Your task to perform on an android device: clear all cookies in the chrome app Image 0: 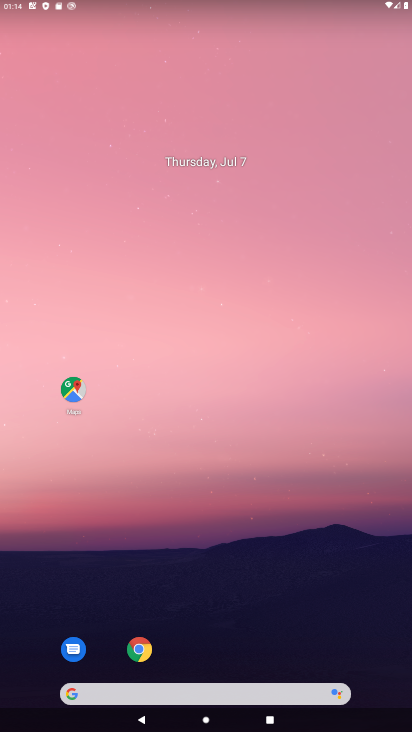
Step 0: drag from (359, 580) to (334, 85)
Your task to perform on an android device: clear all cookies in the chrome app Image 1: 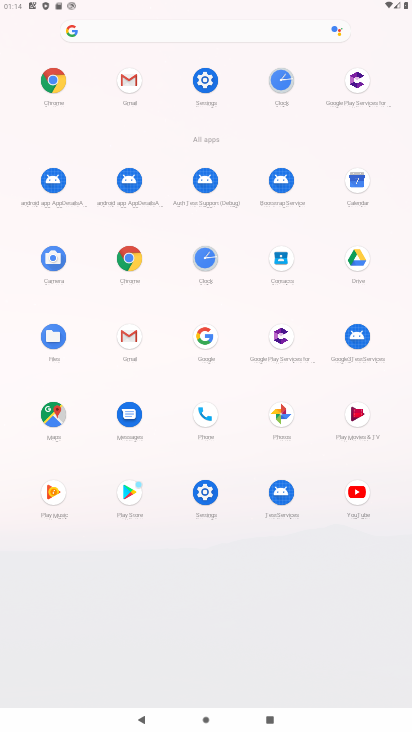
Step 1: click (49, 84)
Your task to perform on an android device: clear all cookies in the chrome app Image 2: 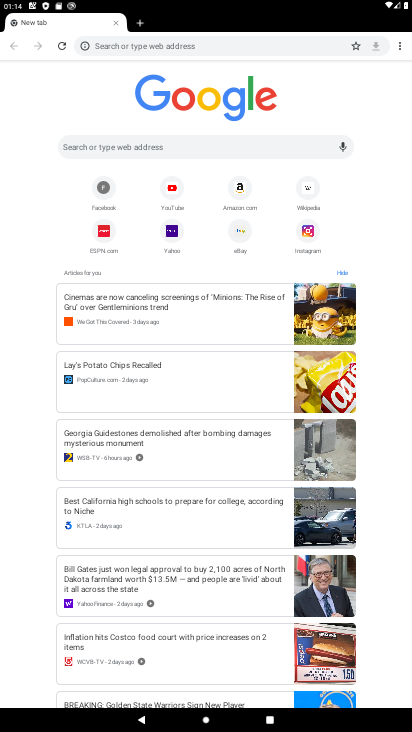
Step 2: click (405, 44)
Your task to perform on an android device: clear all cookies in the chrome app Image 3: 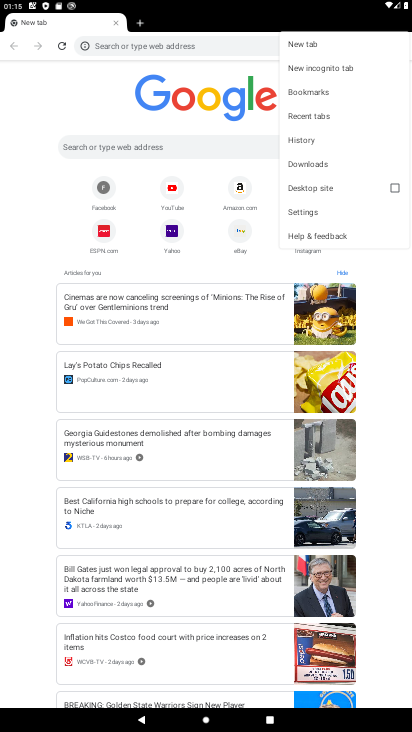
Step 3: click (312, 206)
Your task to perform on an android device: clear all cookies in the chrome app Image 4: 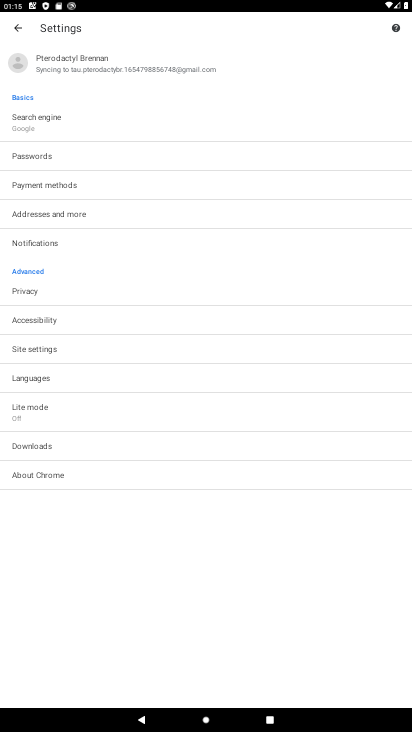
Step 4: click (68, 346)
Your task to perform on an android device: clear all cookies in the chrome app Image 5: 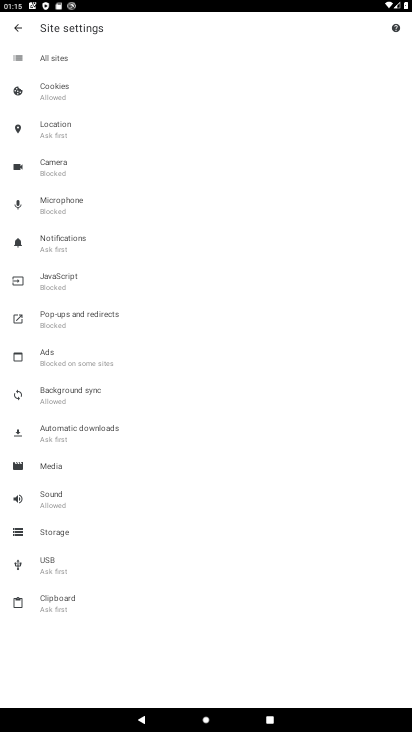
Step 5: click (16, 28)
Your task to perform on an android device: clear all cookies in the chrome app Image 6: 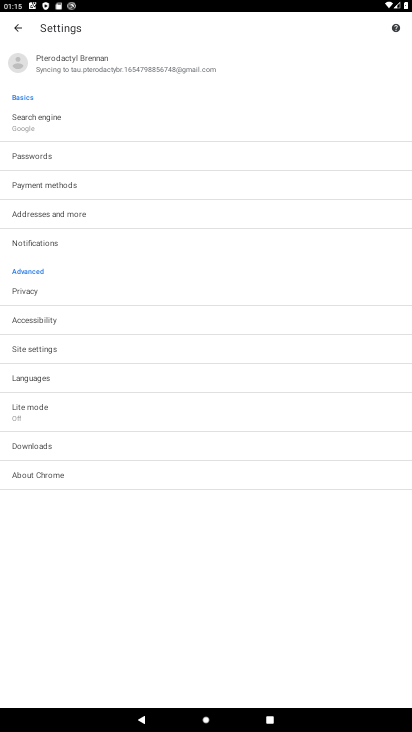
Step 6: click (43, 295)
Your task to perform on an android device: clear all cookies in the chrome app Image 7: 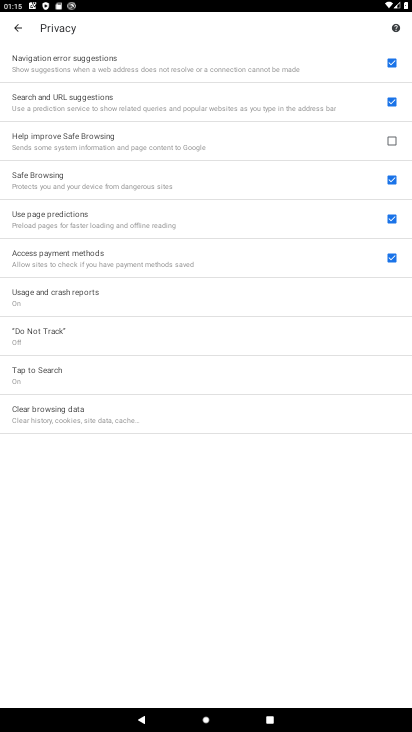
Step 7: click (124, 414)
Your task to perform on an android device: clear all cookies in the chrome app Image 8: 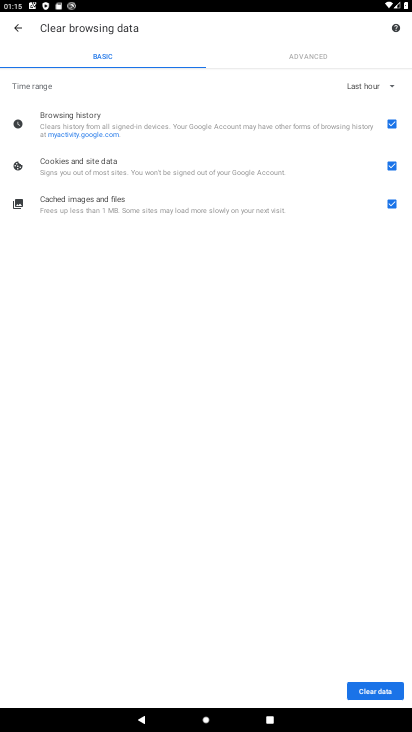
Step 8: click (389, 120)
Your task to perform on an android device: clear all cookies in the chrome app Image 9: 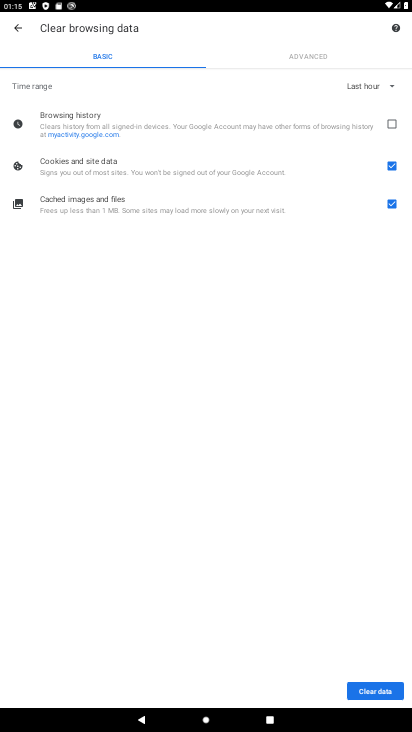
Step 9: click (394, 201)
Your task to perform on an android device: clear all cookies in the chrome app Image 10: 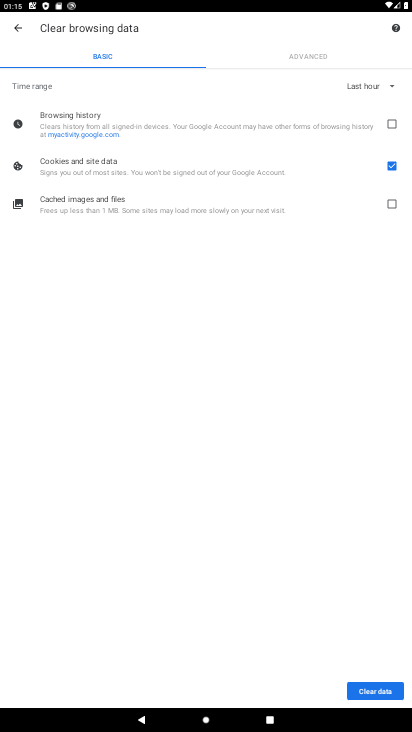
Step 10: click (378, 86)
Your task to perform on an android device: clear all cookies in the chrome app Image 11: 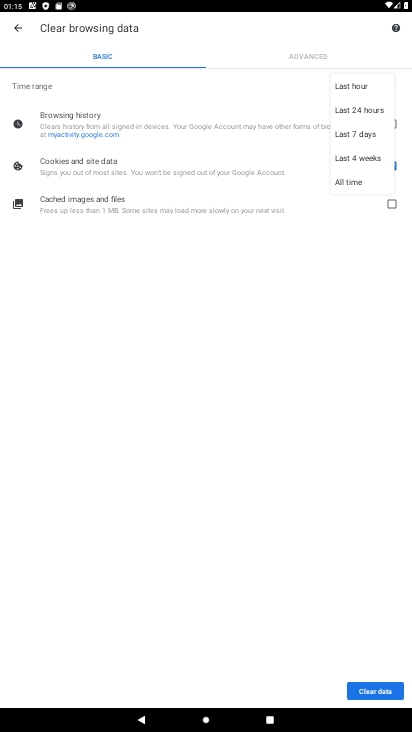
Step 11: click (351, 179)
Your task to perform on an android device: clear all cookies in the chrome app Image 12: 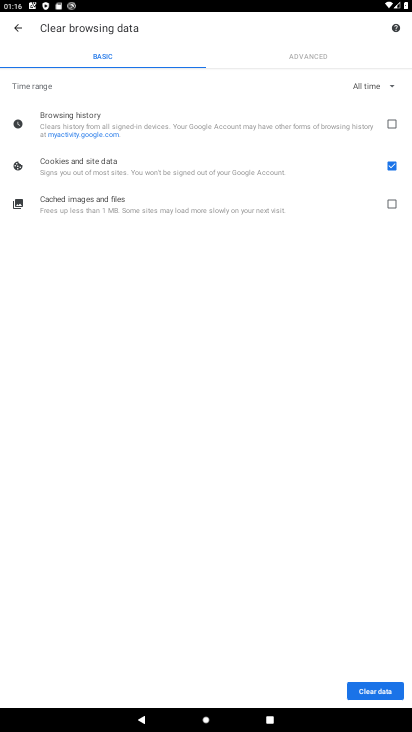
Step 12: click (388, 689)
Your task to perform on an android device: clear all cookies in the chrome app Image 13: 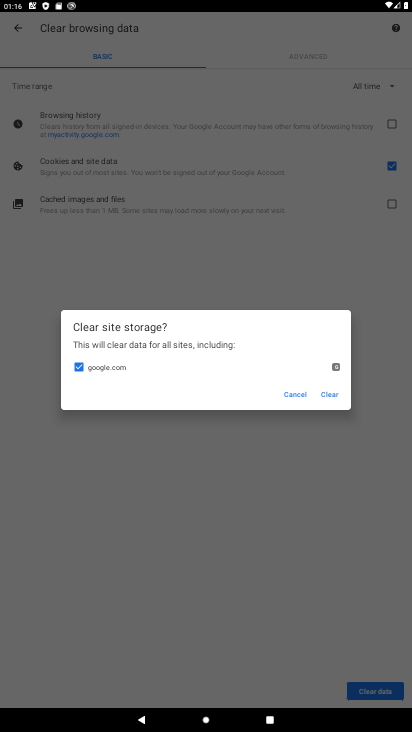
Step 13: click (333, 392)
Your task to perform on an android device: clear all cookies in the chrome app Image 14: 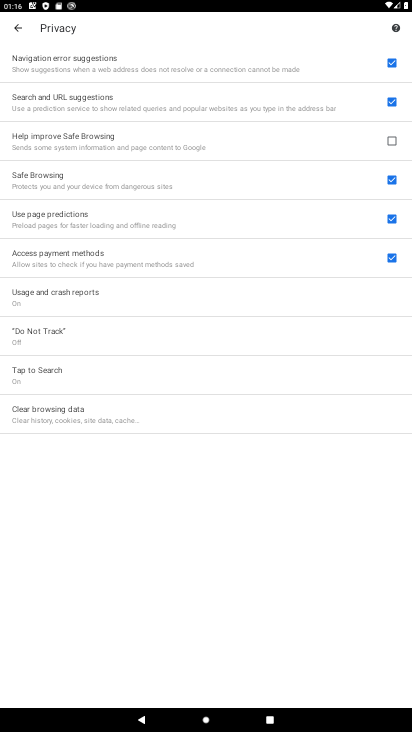
Step 14: task complete